Your task to perform on an android device: toggle improve location accuracy Image 0: 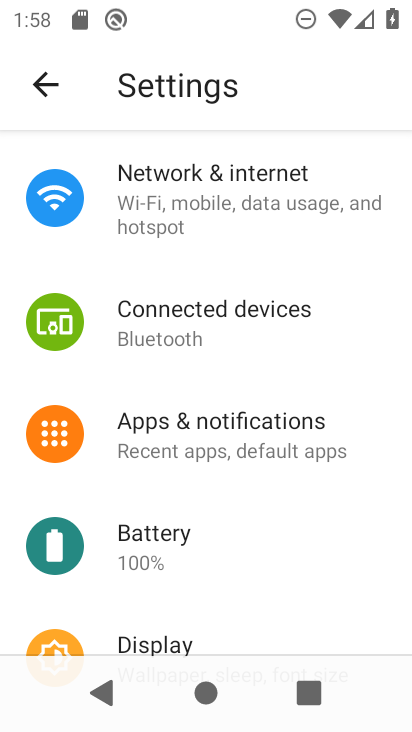
Step 0: press home button
Your task to perform on an android device: toggle improve location accuracy Image 1: 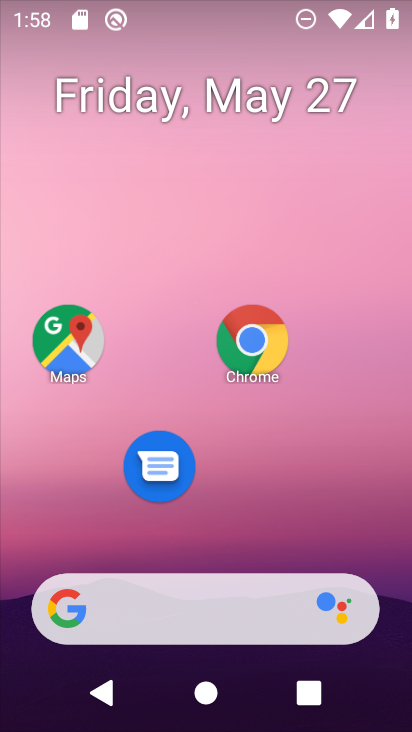
Step 1: drag from (244, 477) to (208, 0)
Your task to perform on an android device: toggle improve location accuracy Image 2: 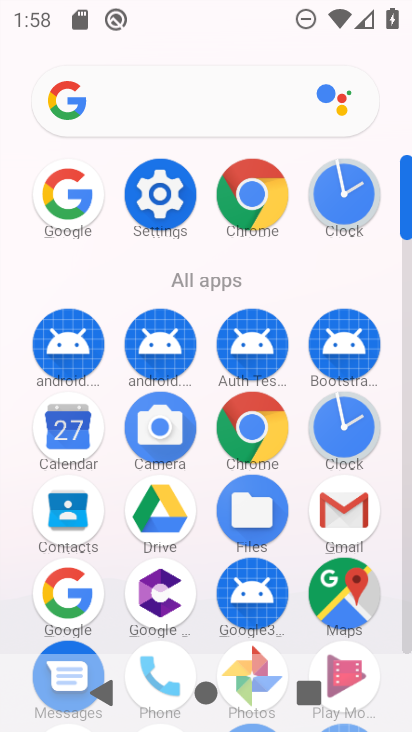
Step 2: click (162, 196)
Your task to perform on an android device: toggle improve location accuracy Image 3: 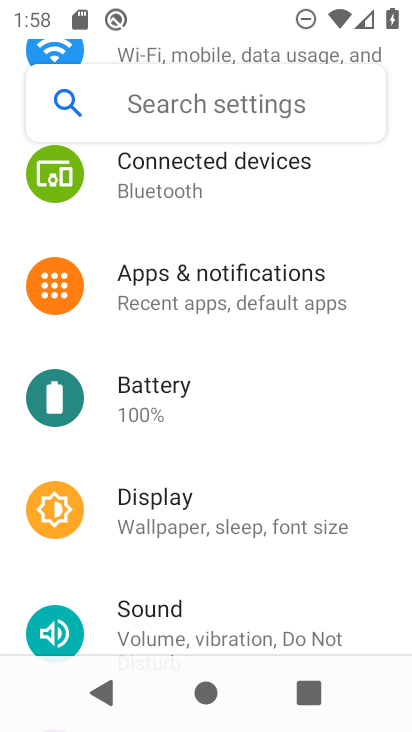
Step 3: drag from (254, 478) to (177, 57)
Your task to perform on an android device: toggle improve location accuracy Image 4: 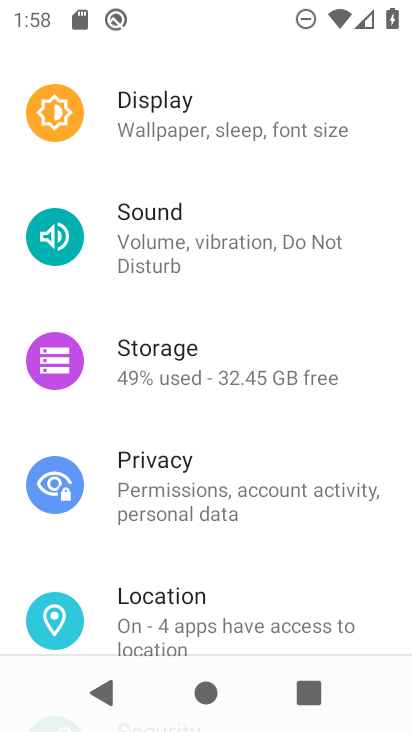
Step 4: click (194, 599)
Your task to perform on an android device: toggle improve location accuracy Image 5: 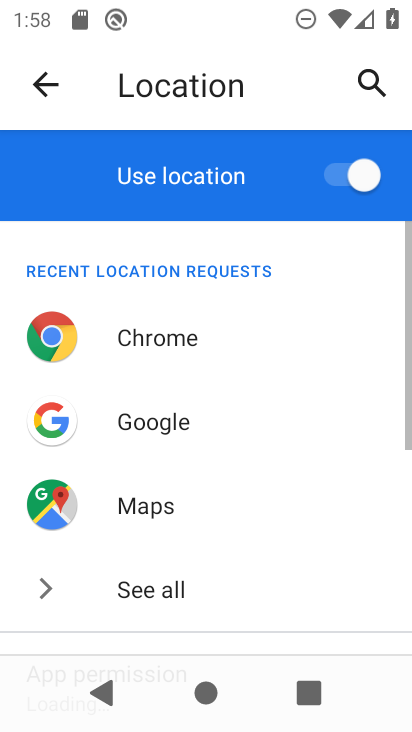
Step 5: drag from (204, 575) to (170, 131)
Your task to perform on an android device: toggle improve location accuracy Image 6: 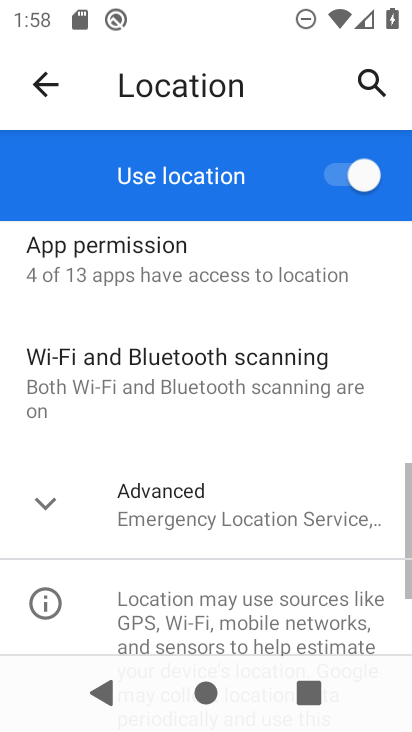
Step 6: click (163, 504)
Your task to perform on an android device: toggle improve location accuracy Image 7: 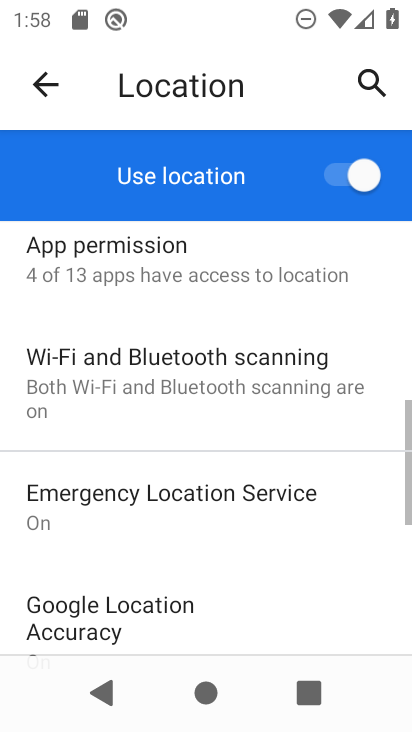
Step 7: drag from (204, 499) to (173, 264)
Your task to perform on an android device: toggle improve location accuracy Image 8: 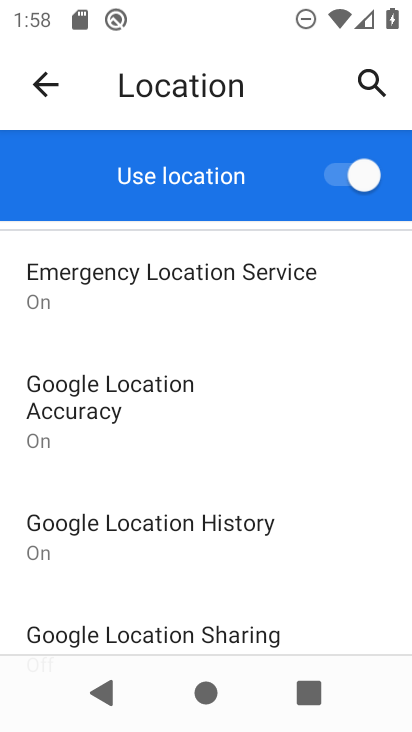
Step 8: click (156, 402)
Your task to perform on an android device: toggle improve location accuracy Image 9: 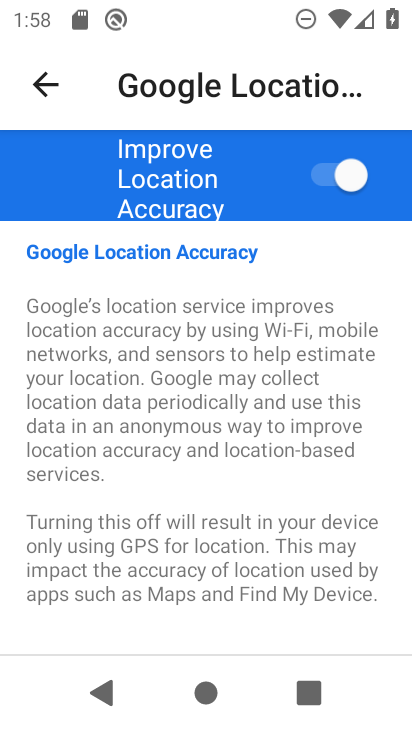
Step 9: click (344, 180)
Your task to perform on an android device: toggle improve location accuracy Image 10: 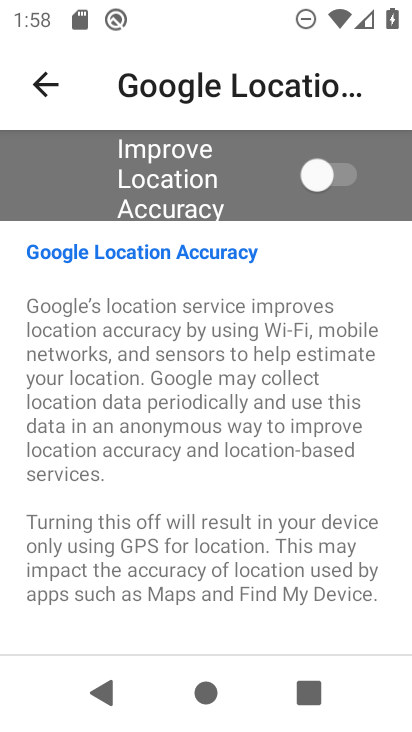
Step 10: task complete